Your task to perform on an android device: turn pop-ups off in chrome Image 0: 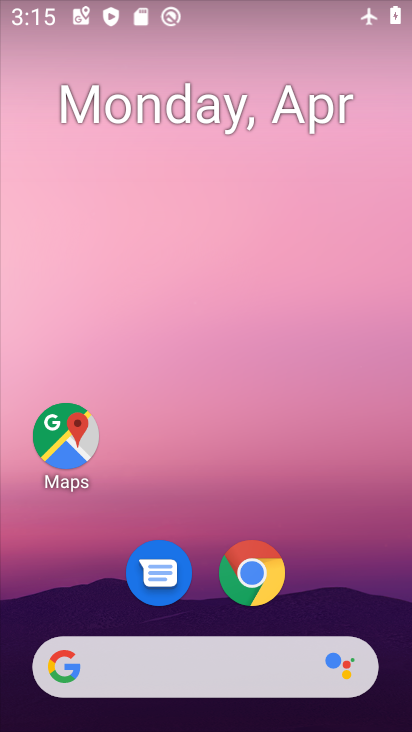
Step 0: drag from (344, 583) to (353, 119)
Your task to perform on an android device: turn pop-ups off in chrome Image 1: 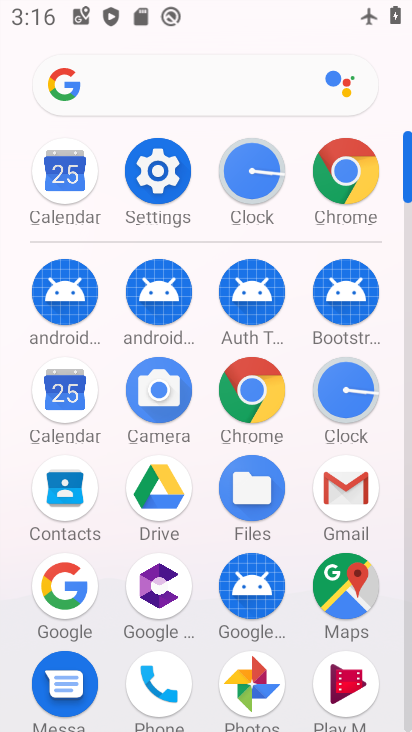
Step 1: click (358, 188)
Your task to perform on an android device: turn pop-ups off in chrome Image 2: 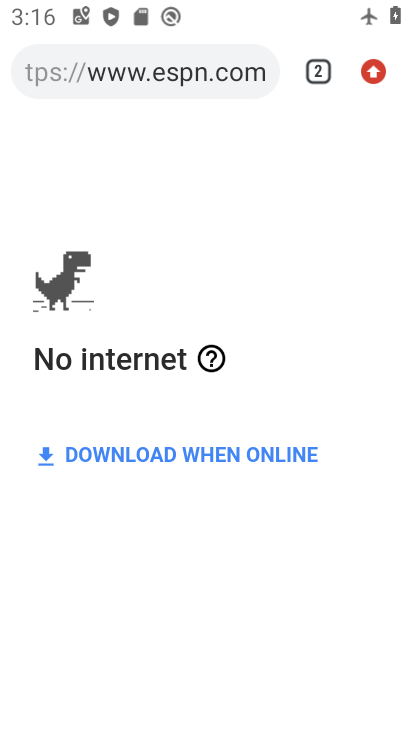
Step 2: click (374, 76)
Your task to perform on an android device: turn pop-ups off in chrome Image 3: 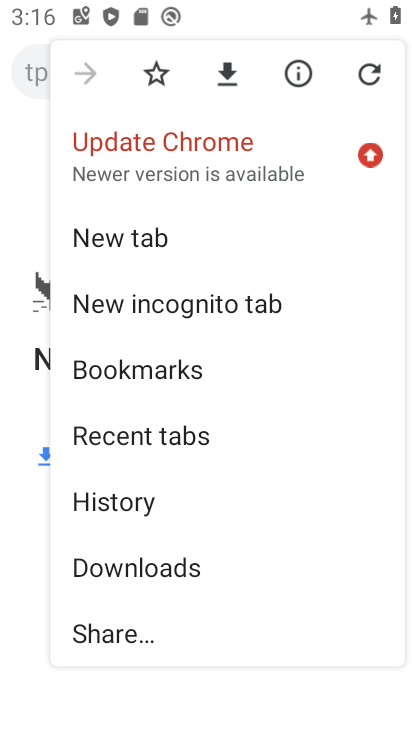
Step 3: drag from (309, 501) to (312, 244)
Your task to perform on an android device: turn pop-ups off in chrome Image 4: 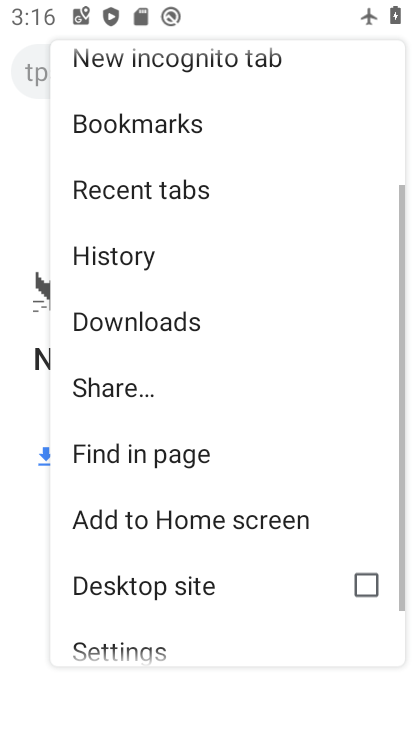
Step 4: drag from (343, 482) to (374, 301)
Your task to perform on an android device: turn pop-ups off in chrome Image 5: 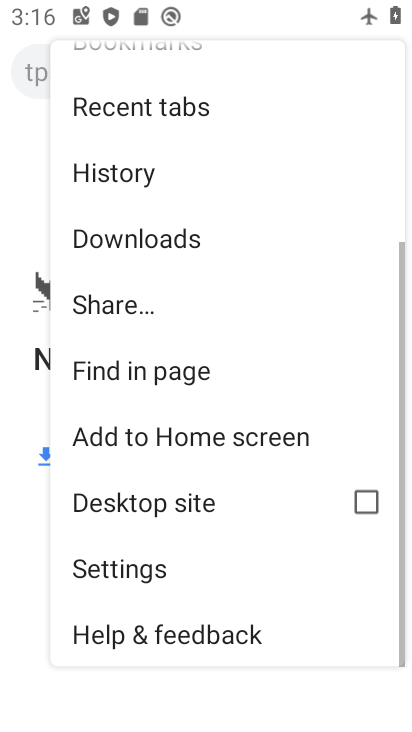
Step 5: drag from (277, 596) to (317, 306)
Your task to perform on an android device: turn pop-ups off in chrome Image 6: 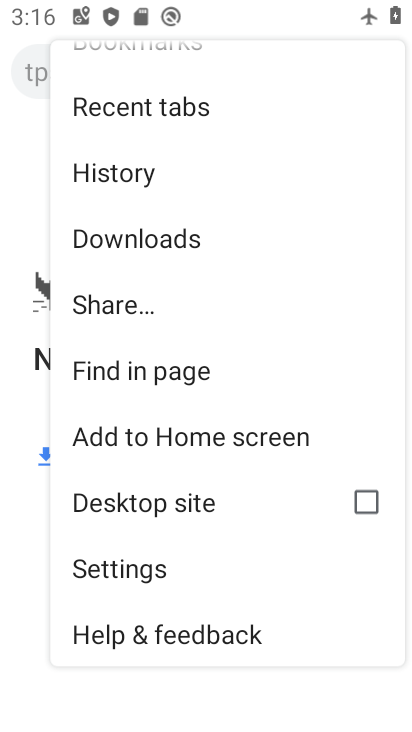
Step 6: click (141, 578)
Your task to perform on an android device: turn pop-ups off in chrome Image 7: 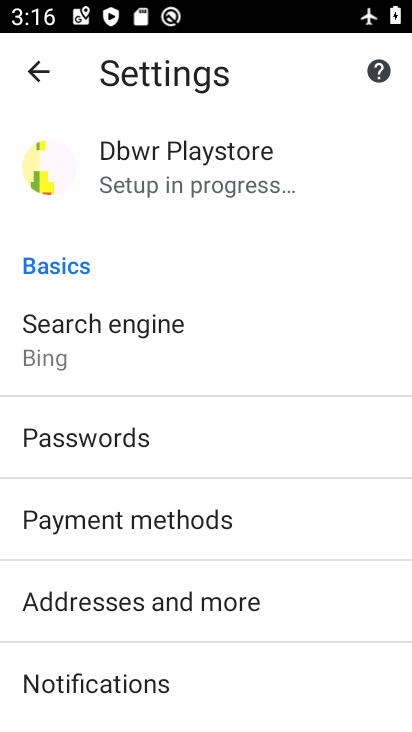
Step 7: drag from (347, 598) to (359, 406)
Your task to perform on an android device: turn pop-ups off in chrome Image 8: 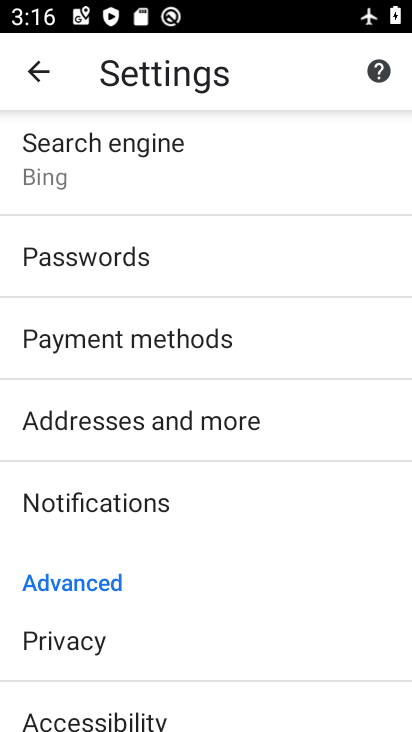
Step 8: drag from (331, 603) to (329, 448)
Your task to perform on an android device: turn pop-ups off in chrome Image 9: 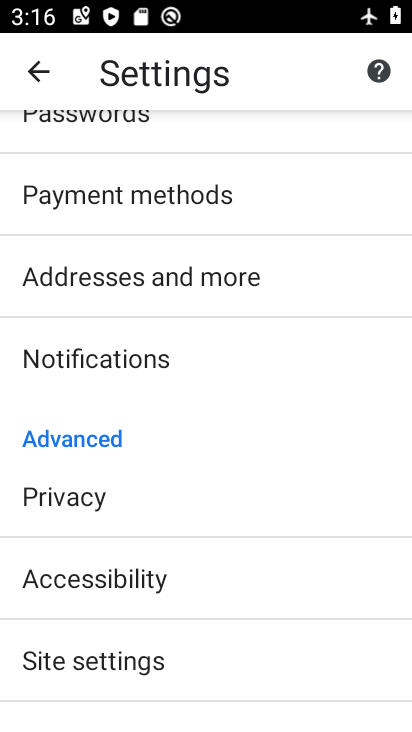
Step 9: drag from (350, 668) to (350, 470)
Your task to perform on an android device: turn pop-ups off in chrome Image 10: 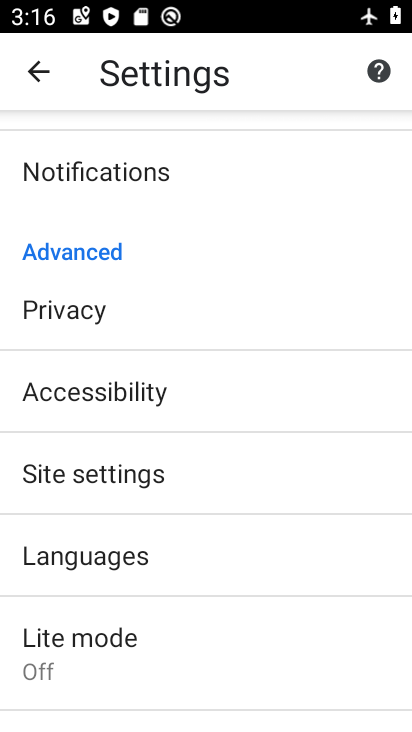
Step 10: drag from (310, 646) to (295, 471)
Your task to perform on an android device: turn pop-ups off in chrome Image 11: 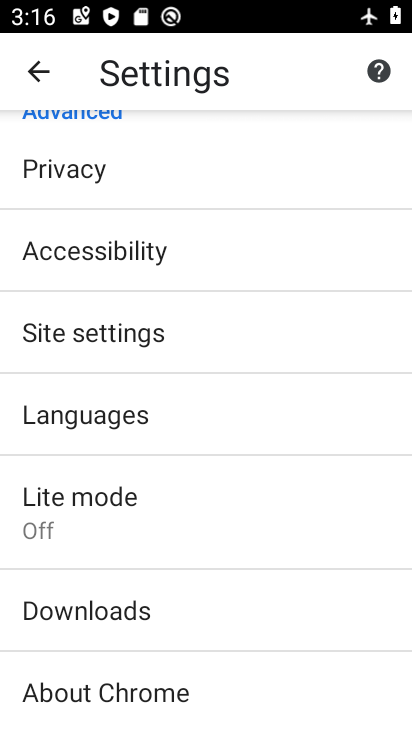
Step 11: click (263, 343)
Your task to perform on an android device: turn pop-ups off in chrome Image 12: 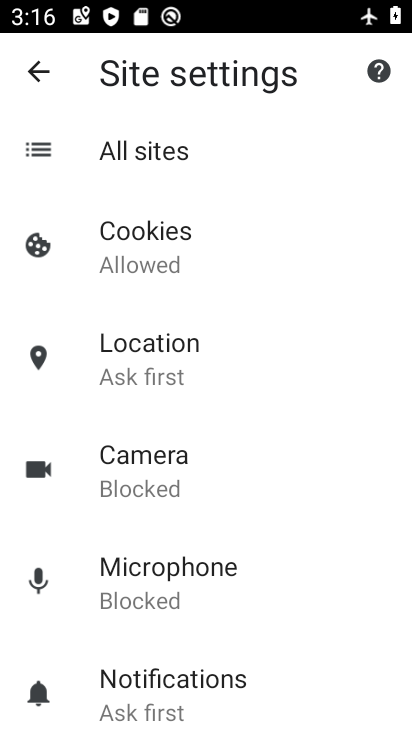
Step 12: drag from (314, 602) to (317, 382)
Your task to perform on an android device: turn pop-ups off in chrome Image 13: 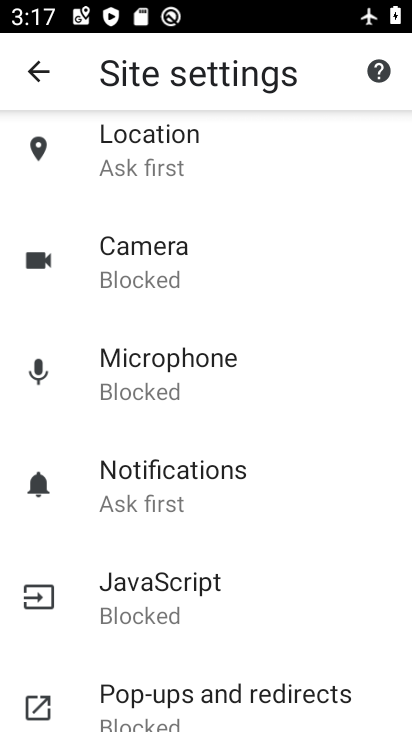
Step 13: drag from (290, 584) to (303, 413)
Your task to perform on an android device: turn pop-ups off in chrome Image 14: 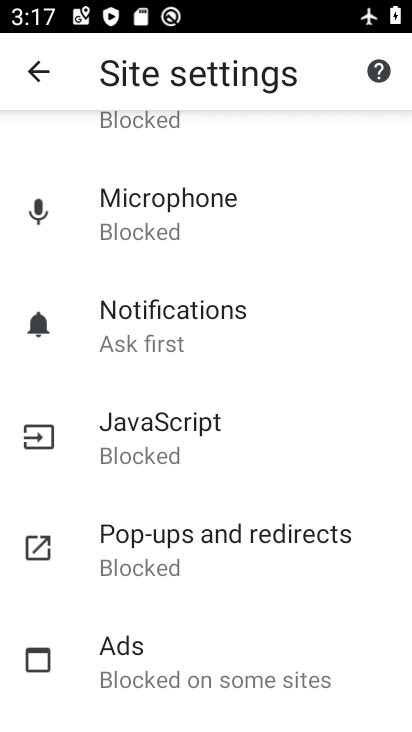
Step 14: drag from (286, 579) to (294, 430)
Your task to perform on an android device: turn pop-ups off in chrome Image 15: 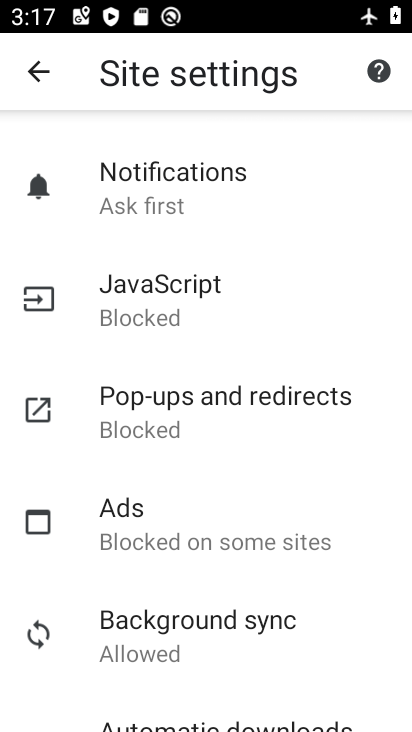
Step 15: click (225, 429)
Your task to perform on an android device: turn pop-ups off in chrome Image 16: 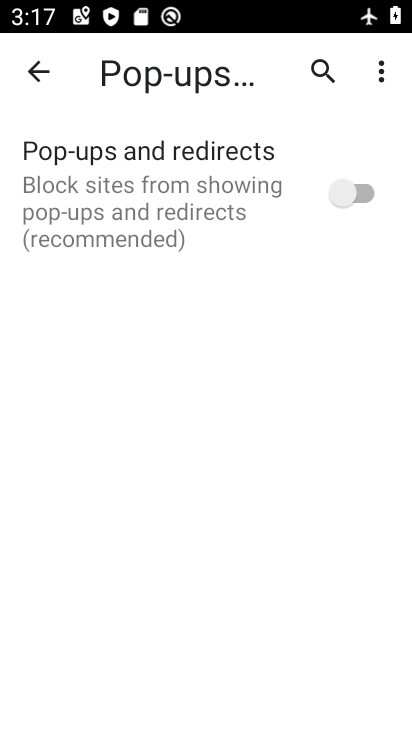
Step 16: task complete